Your task to perform on an android device: turn on location history Image 0: 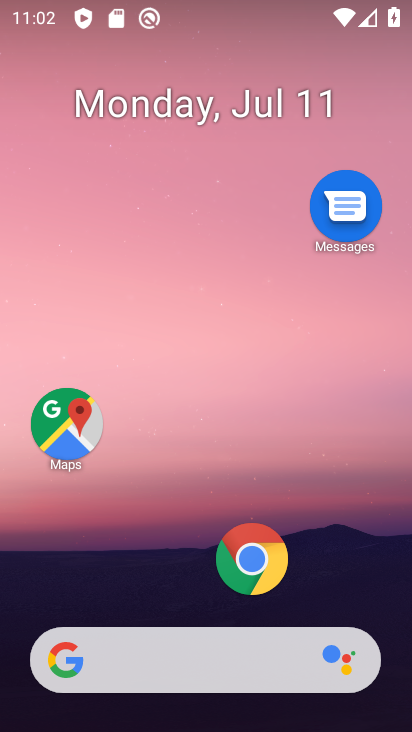
Step 0: drag from (358, 565) to (372, 191)
Your task to perform on an android device: turn on location history Image 1: 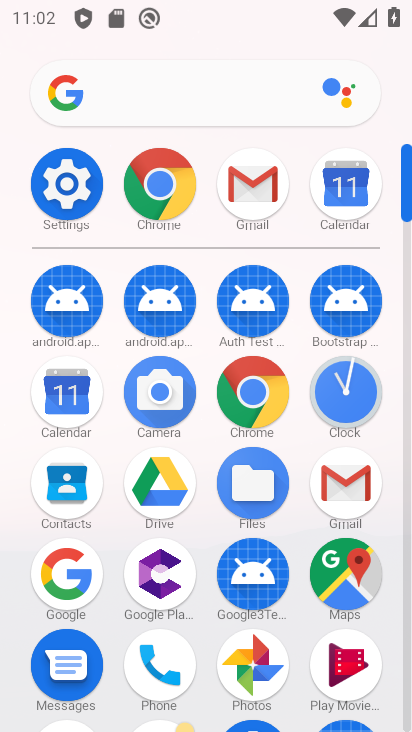
Step 1: click (79, 202)
Your task to perform on an android device: turn on location history Image 2: 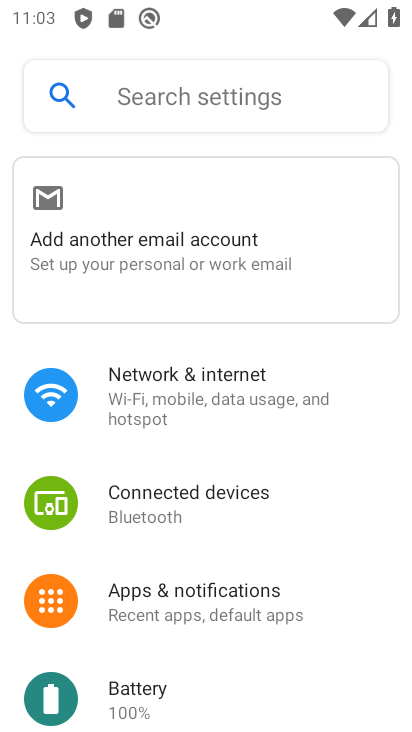
Step 2: drag from (319, 478) to (339, 242)
Your task to perform on an android device: turn on location history Image 3: 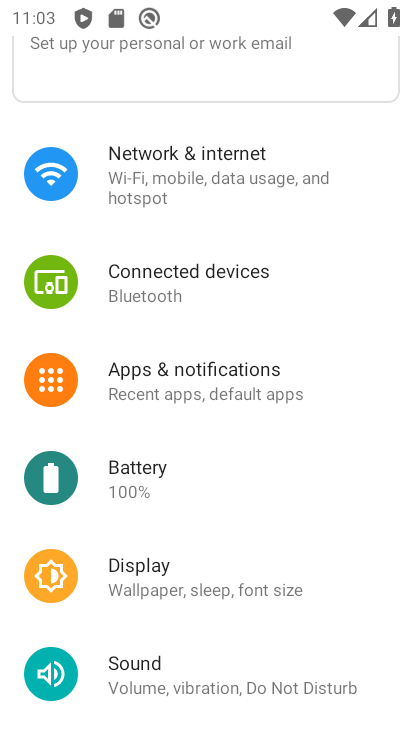
Step 3: drag from (334, 450) to (341, 290)
Your task to perform on an android device: turn on location history Image 4: 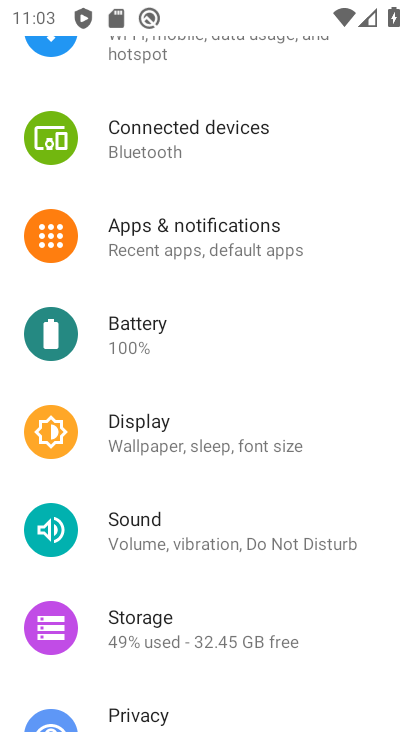
Step 4: drag from (341, 481) to (358, 318)
Your task to perform on an android device: turn on location history Image 5: 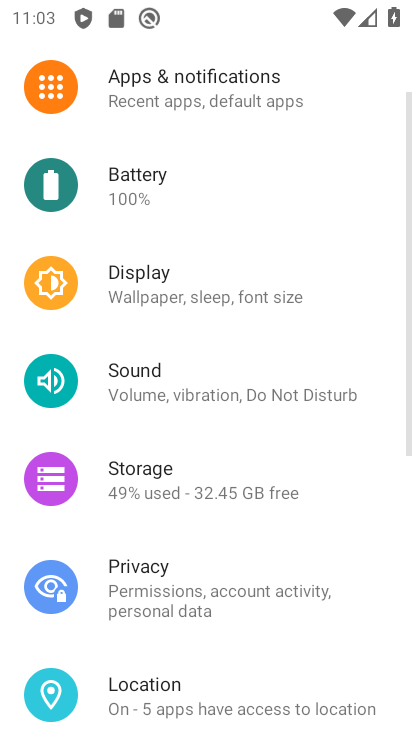
Step 5: drag from (349, 489) to (343, 308)
Your task to perform on an android device: turn on location history Image 6: 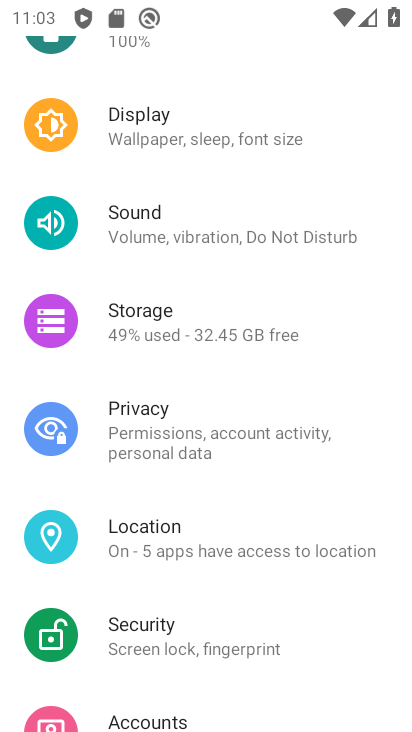
Step 6: drag from (362, 576) to (372, 342)
Your task to perform on an android device: turn on location history Image 7: 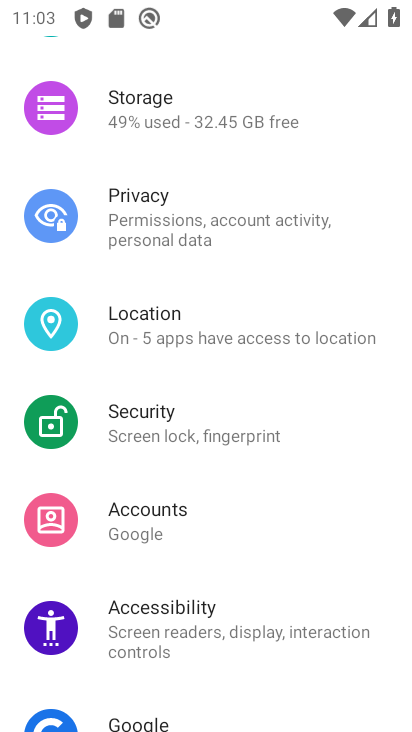
Step 7: drag from (360, 496) to (347, 343)
Your task to perform on an android device: turn on location history Image 8: 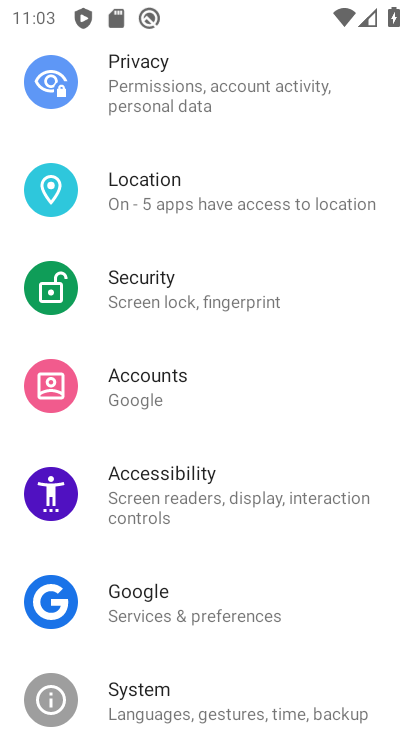
Step 8: click (176, 195)
Your task to perform on an android device: turn on location history Image 9: 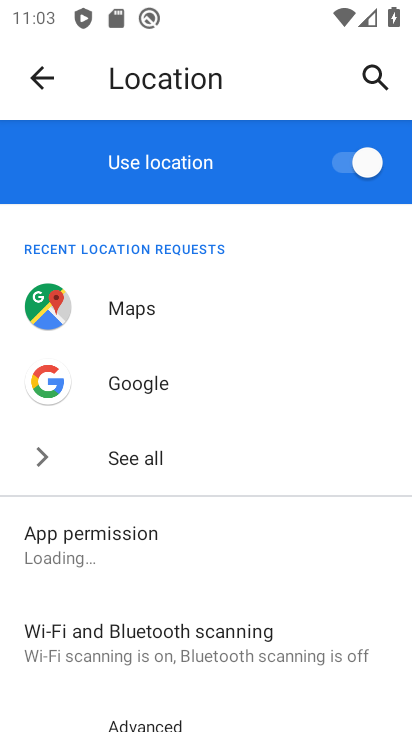
Step 9: drag from (259, 433) to (255, 257)
Your task to perform on an android device: turn on location history Image 10: 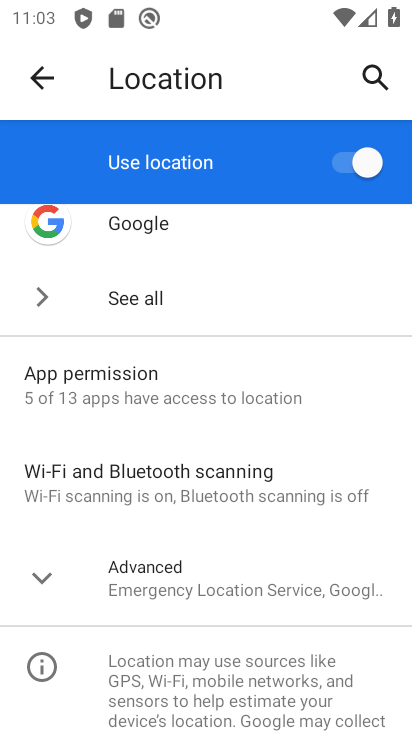
Step 10: drag from (314, 532) to (310, 382)
Your task to perform on an android device: turn on location history Image 11: 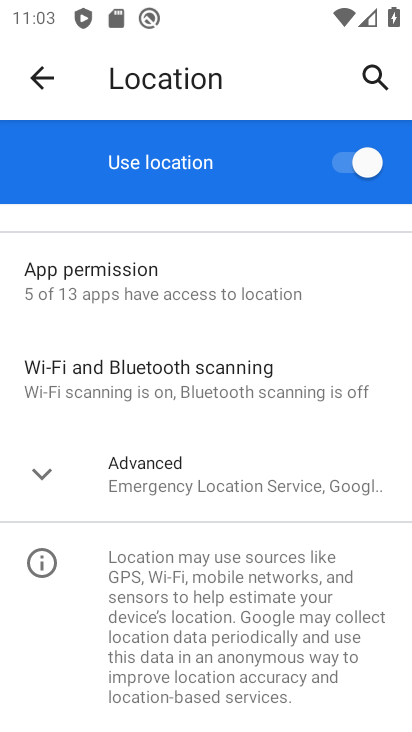
Step 11: click (219, 476)
Your task to perform on an android device: turn on location history Image 12: 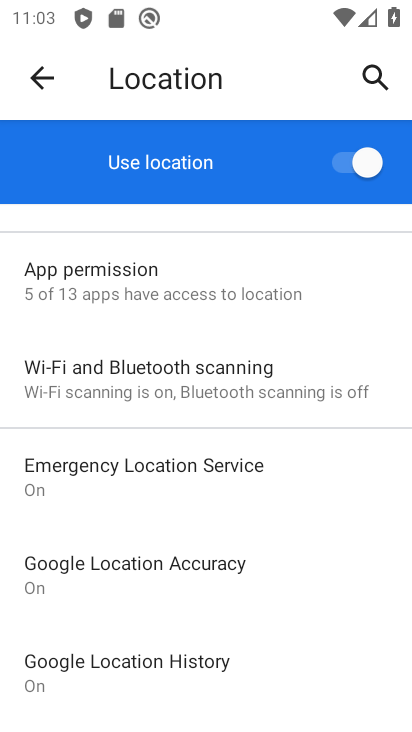
Step 12: task complete